Your task to perform on an android device: Go to CNN.com Image 0: 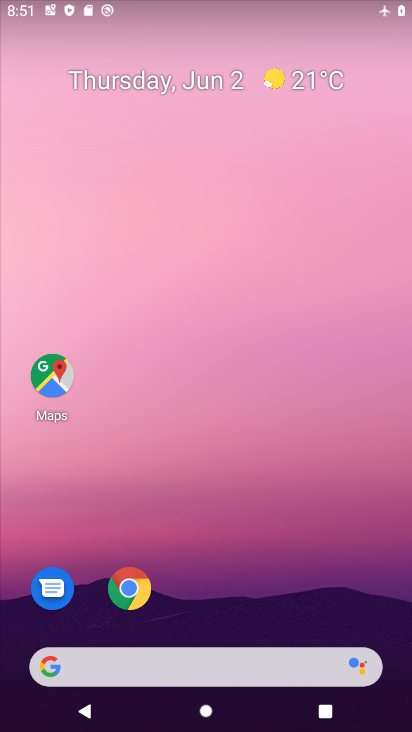
Step 0: click (147, 602)
Your task to perform on an android device: Go to CNN.com Image 1: 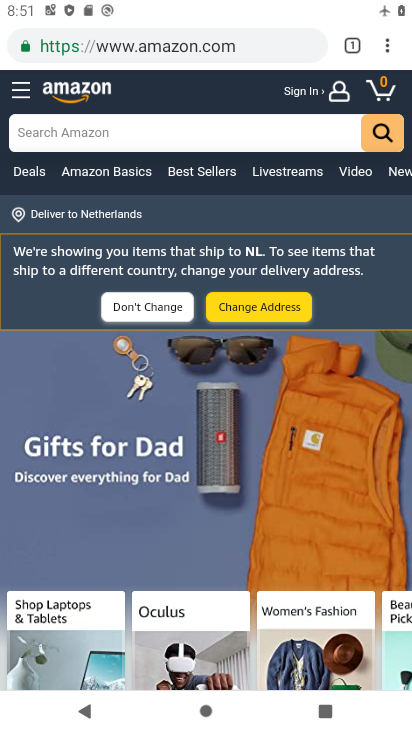
Step 1: click (175, 62)
Your task to perform on an android device: Go to CNN.com Image 2: 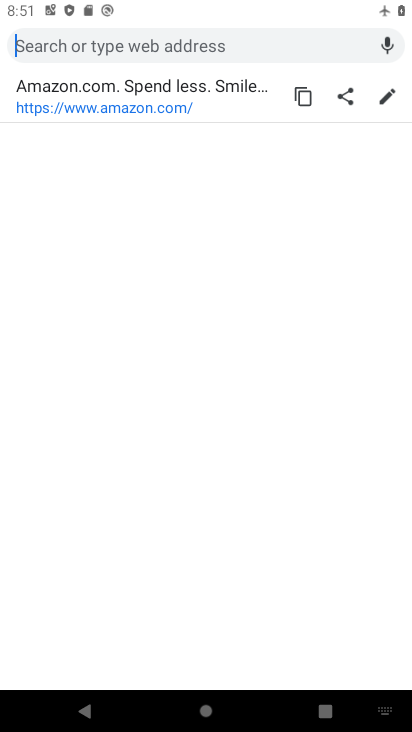
Step 2: type "cnn.com"
Your task to perform on an android device: Go to CNN.com Image 3: 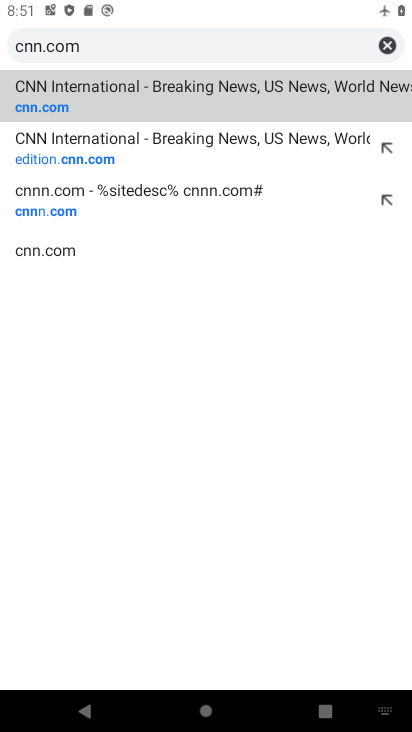
Step 3: click (122, 95)
Your task to perform on an android device: Go to CNN.com Image 4: 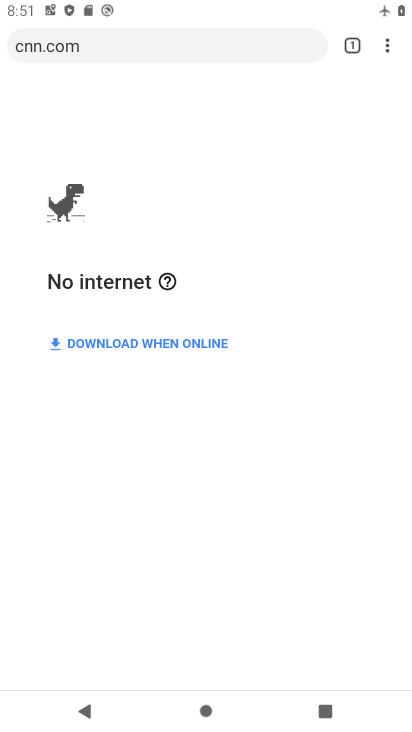
Step 4: task complete